Your task to perform on an android device: make emails show in primary in the gmail app Image 0: 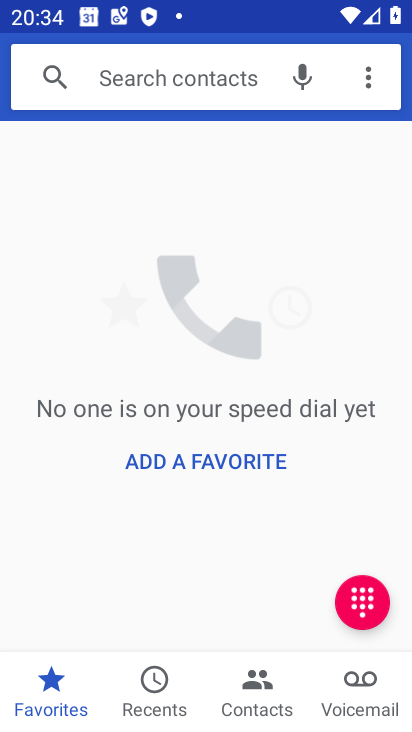
Step 0: press home button
Your task to perform on an android device: make emails show in primary in the gmail app Image 1: 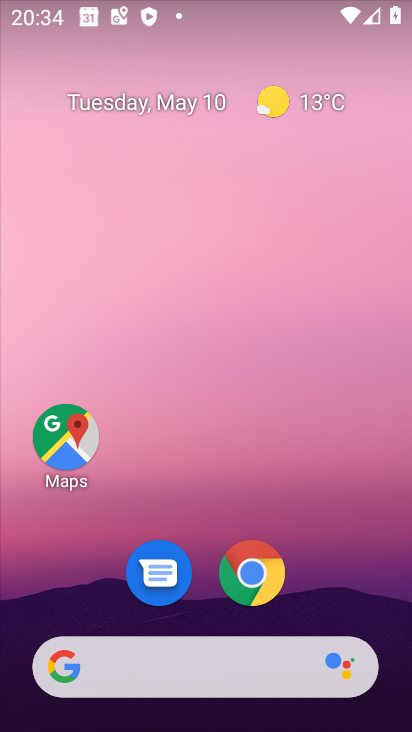
Step 1: drag from (306, 607) to (347, 33)
Your task to perform on an android device: make emails show in primary in the gmail app Image 2: 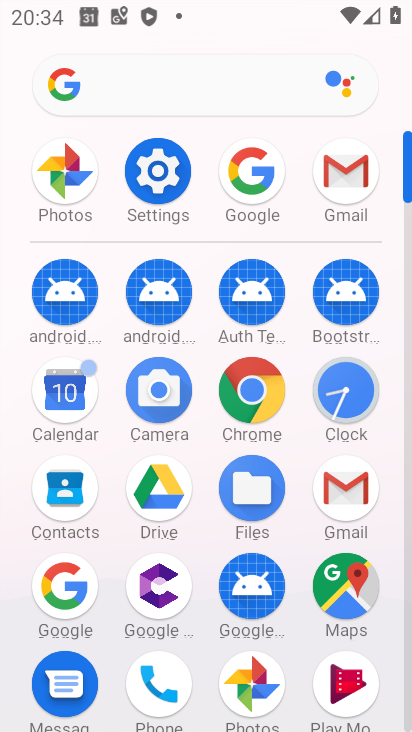
Step 2: click (347, 183)
Your task to perform on an android device: make emails show in primary in the gmail app Image 3: 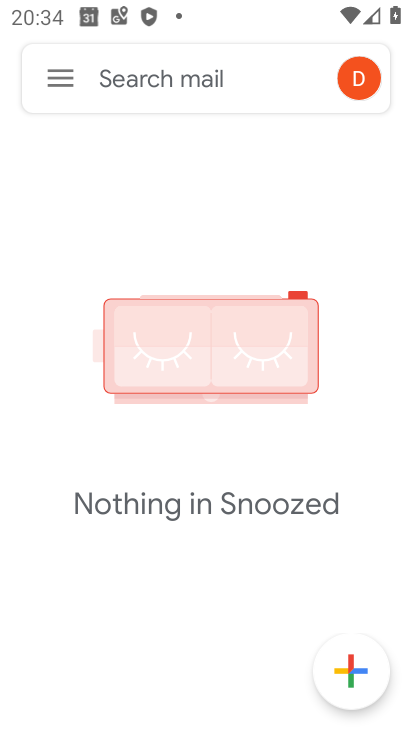
Step 3: click (54, 80)
Your task to perform on an android device: make emails show in primary in the gmail app Image 4: 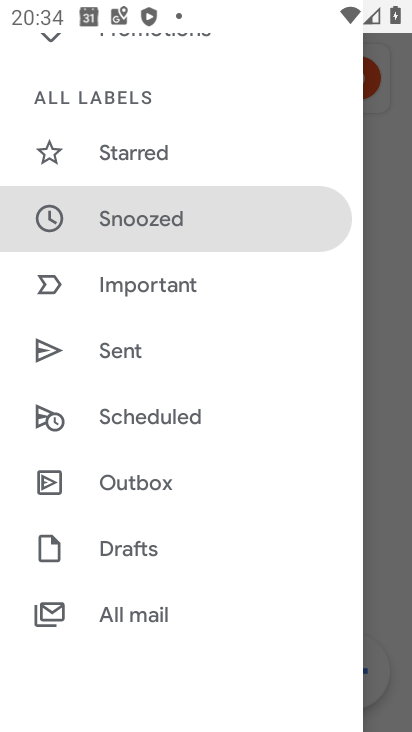
Step 4: drag from (174, 600) to (183, 225)
Your task to perform on an android device: make emails show in primary in the gmail app Image 5: 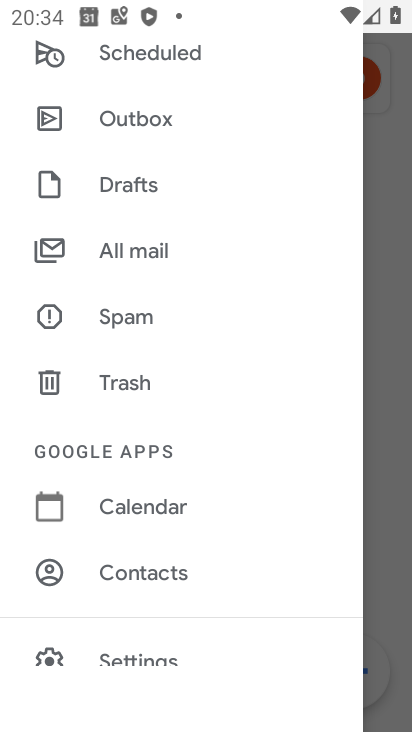
Step 5: drag from (148, 595) to (173, 254)
Your task to perform on an android device: make emails show in primary in the gmail app Image 6: 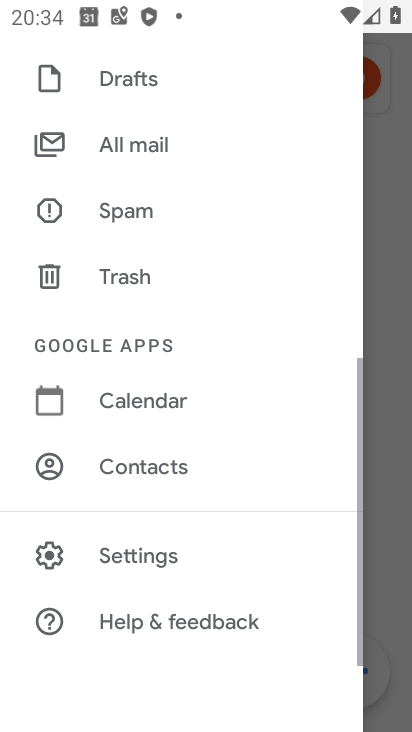
Step 6: click (134, 566)
Your task to perform on an android device: make emails show in primary in the gmail app Image 7: 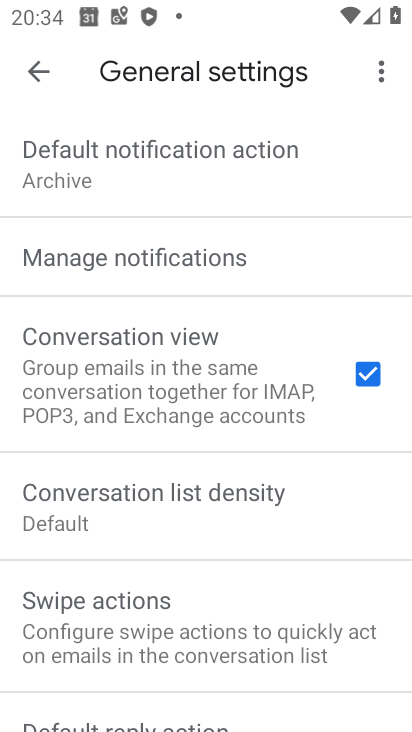
Step 7: click (31, 75)
Your task to perform on an android device: make emails show in primary in the gmail app Image 8: 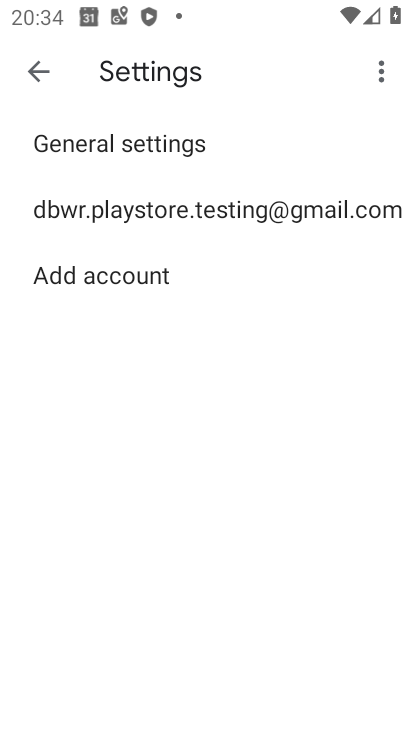
Step 8: click (82, 204)
Your task to perform on an android device: make emails show in primary in the gmail app Image 9: 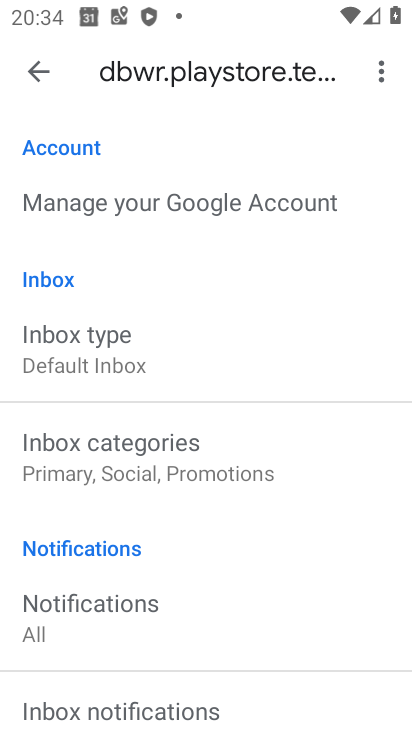
Step 9: click (134, 467)
Your task to perform on an android device: make emails show in primary in the gmail app Image 10: 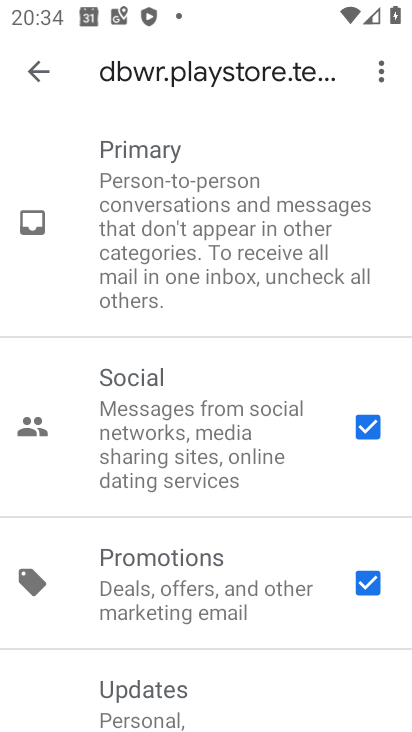
Step 10: click (365, 424)
Your task to perform on an android device: make emails show in primary in the gmail app Image 11: 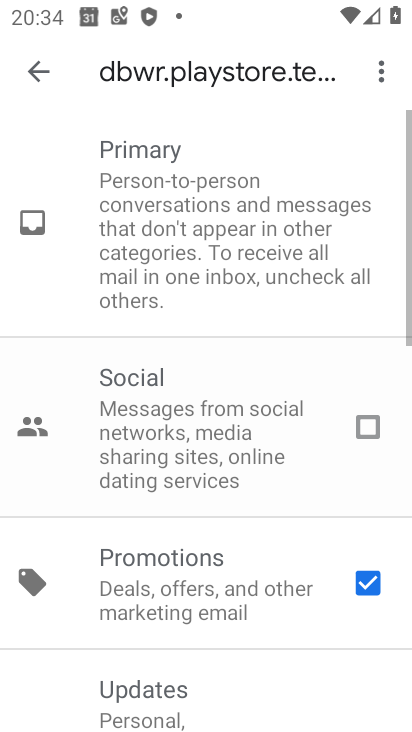
Step 11: click (368, 574)
Your task to perform on an android device: make emails show in primary in the gmail app Image 12: 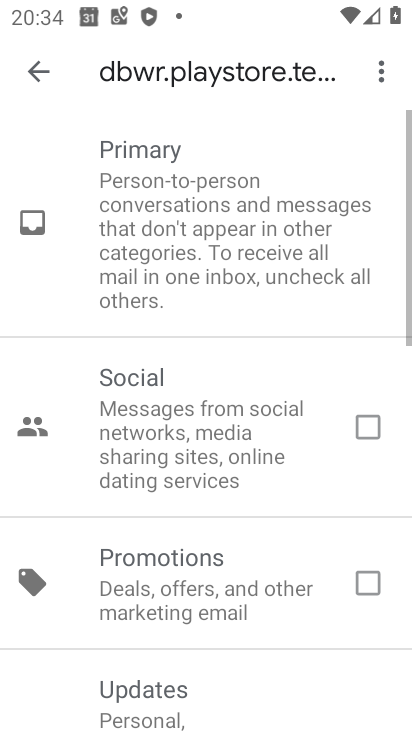
Step 12: drag from (184, 562) to (186, 246)
Your task to perform on an android device: make emails show in primary in the gmail app Image 13: 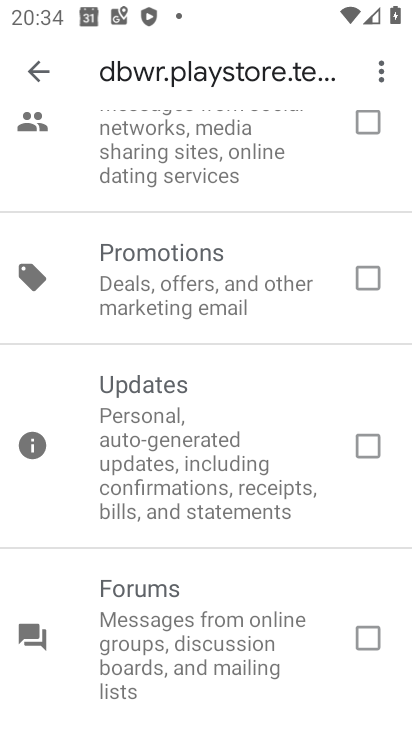
Step 13: click (49, 70)
Your task to perform on an android device: make emails show in primary in the gmail app Image 14: 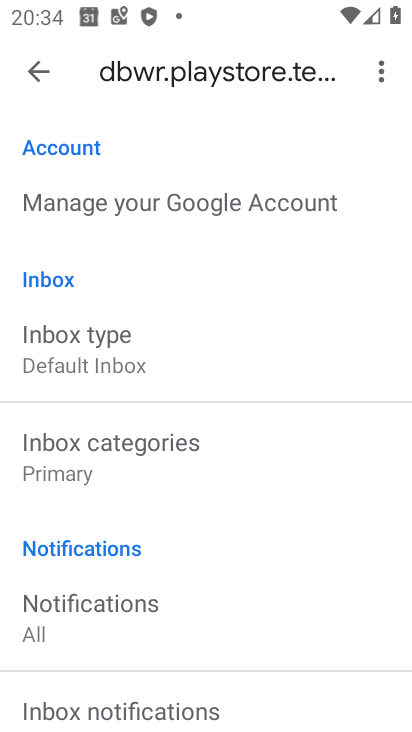
Step 14: task complete